Your task to perform on an android device: change notifications settings Image 0: 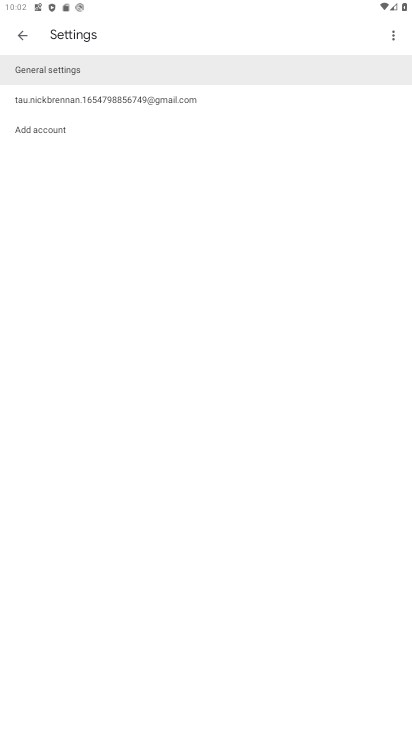
Step 0: press home button
Your task to perform on an android device: change notifications settings Image 1: 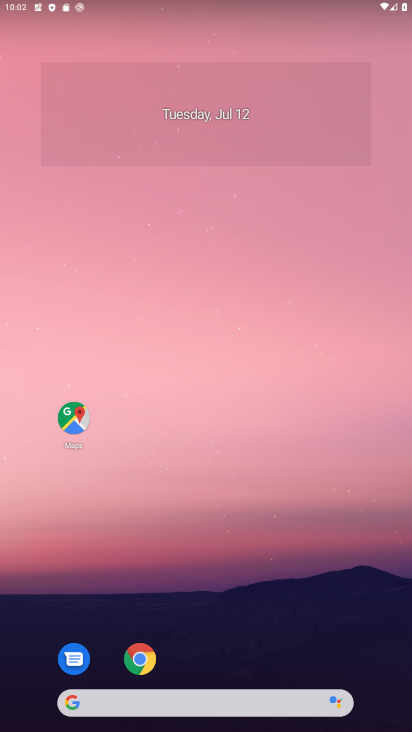
Step 1: drag from (202, 488) to (31, 628)
Your task to perform on an android device: change notifications settings Image 2: 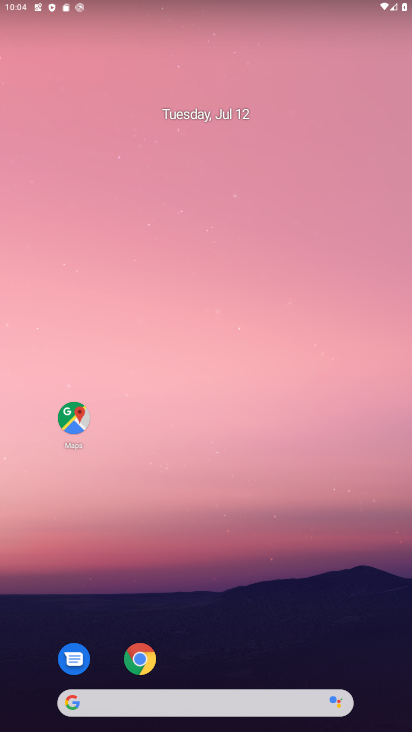
Step 2: drag from (391, 699) to (319, 197)
Your task to perform on an android device: change notifications settings Image 3: 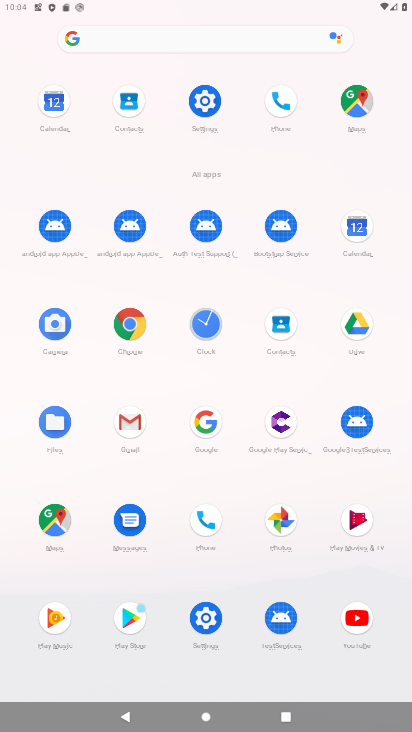
Step 3: click (203, 96)
Your task to perform on an android device: change notifications settings Image 4: 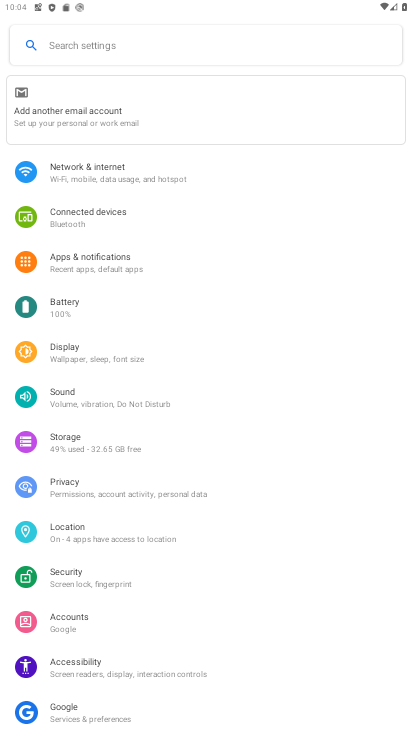
Step 4: task complete